Your task to perform on an android device: Search for Italian restaurants on Maps Image 0: 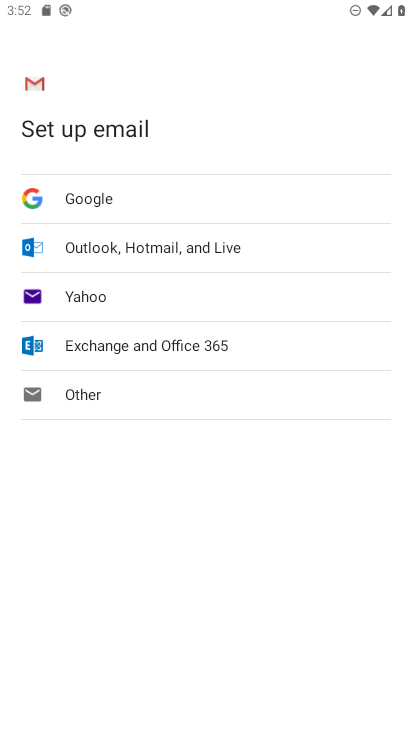
Step 0: drag from (337, 673) to (320, 262)
Your task to perform on an android device: Search for Italian restaurants on Maps Image 1: 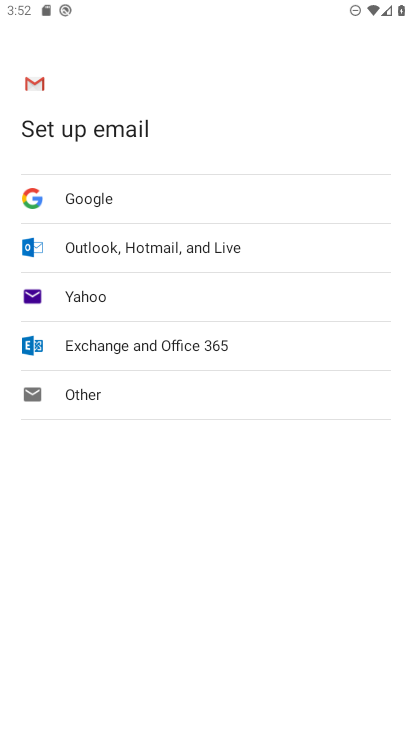
Step 1: press home button
Your task to perform on an android device: Search for Italian restaurants on Maps Image 2: 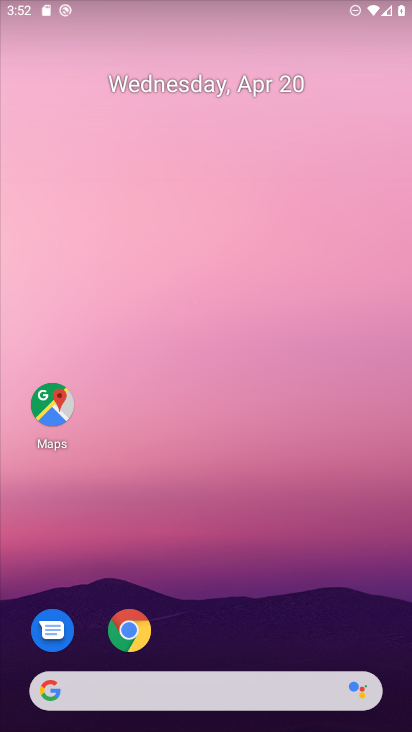
Step 2: drag from (222, 604) to (290, 133)
Your task to perform on an android device: Search for Italian restaurants on Maps Image 3: 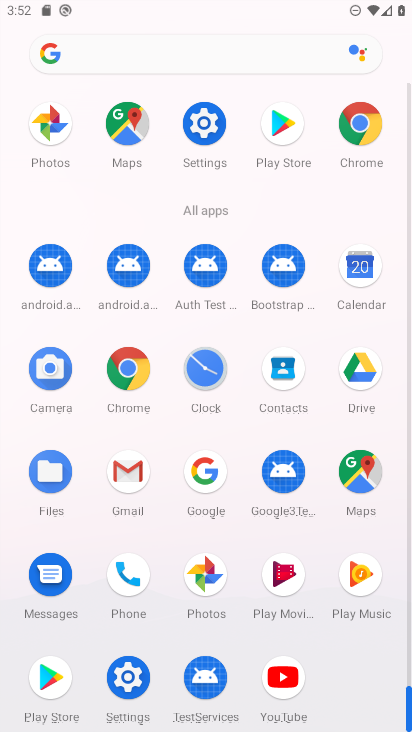
Step 3: click (375, 467)
Your task to perform on an android device: Search for Italian restaurants on Maps Image 4: 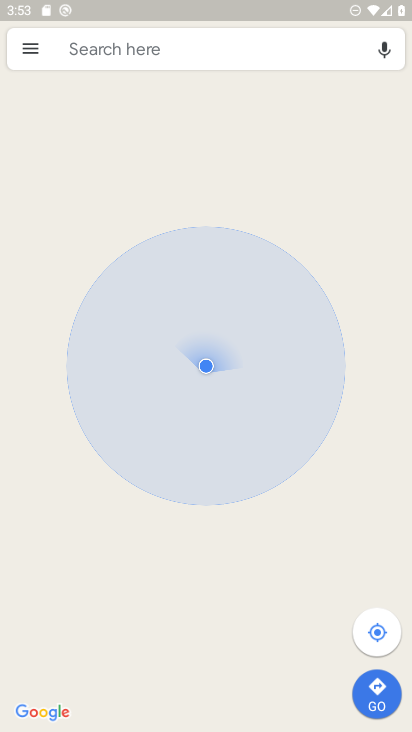
Step 4: click (277, 51)
Your task to perform on an android device: Search for Italian restaurants on Maps Image 5: 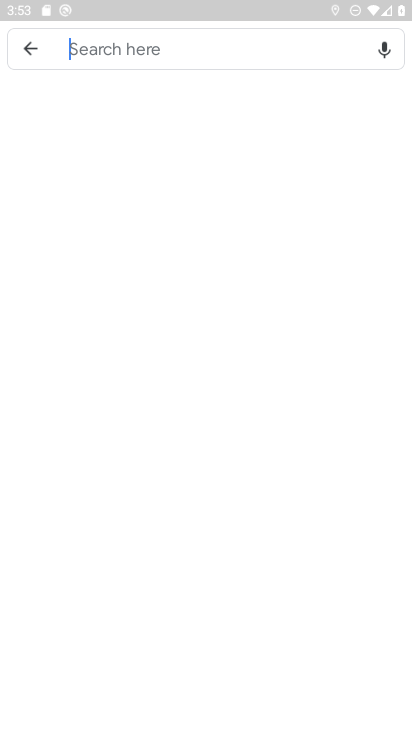
Step 5: click (280, 57)
Your task to perform on an android device: Search for Italian restaurants on Maps Image 6: 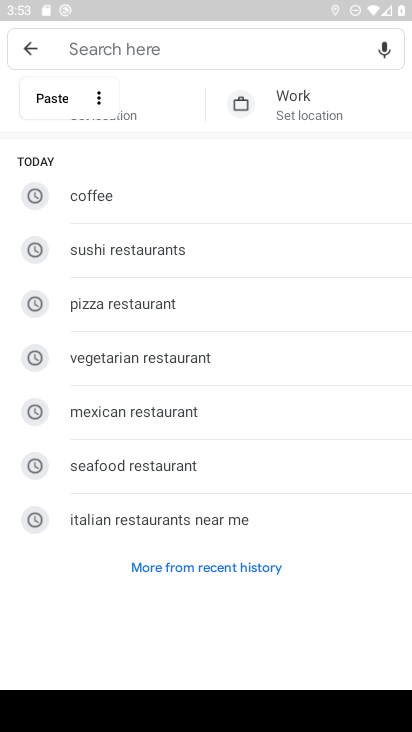
Step 6: type "italian restaurant"
Your task to perform on an android device: Search for Italian restaurants on Maps Image 7: 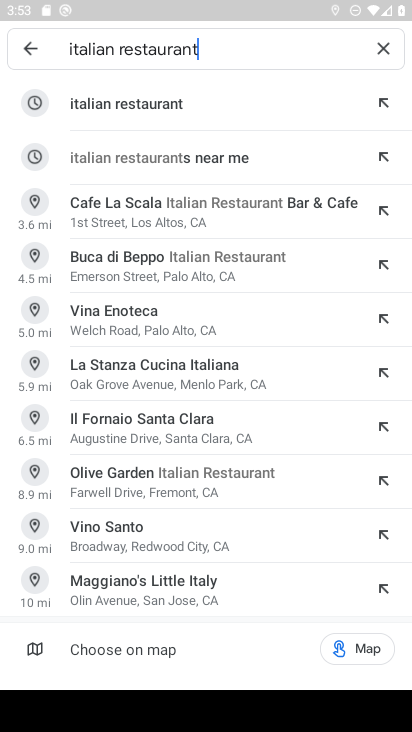
Step 7: click (223, 119)
Your task to perform on an android device: Search for Italian restaurants on Maps Image 8: 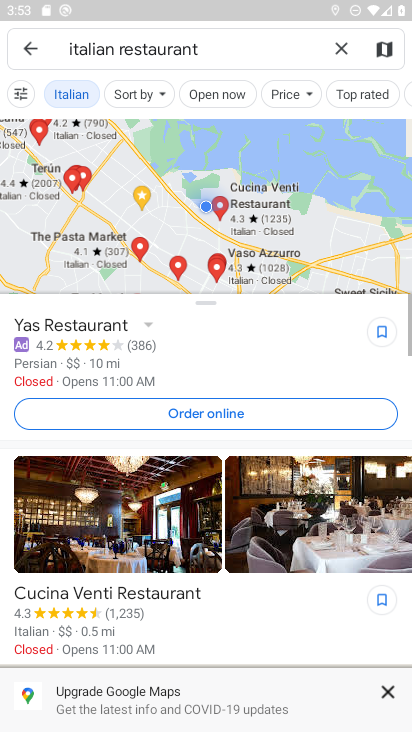
Step 8: task complete